Your task to perform on an android device: turn off translation in the chrome app Image 0: 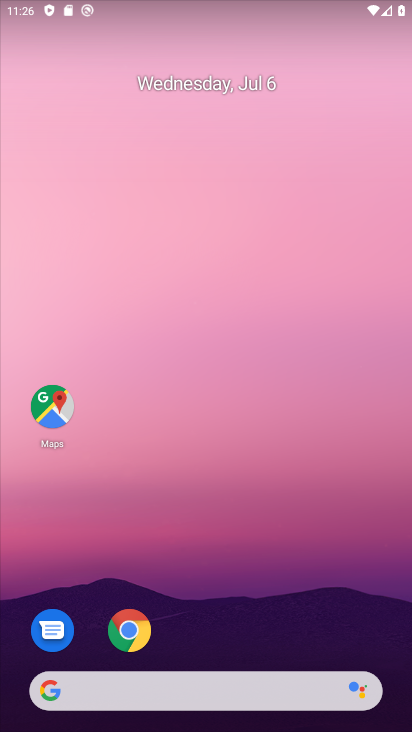
Step 0: drag from (268, 607) to (181, 119)
Your task to perform on an android device: turn off translation in the chrome app Image 1: 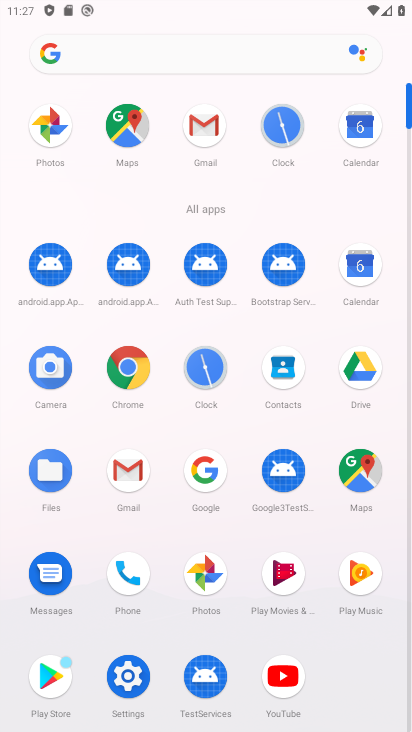
Step 1: click (134, 369)
Your task to perform on an android device: turn off translation in the chrome app Image 2: 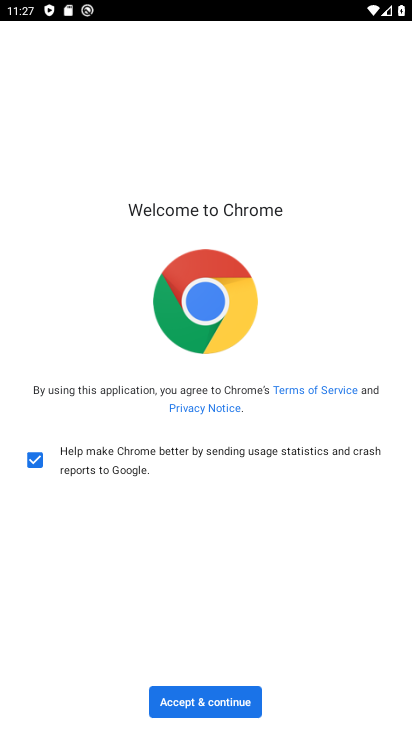
Step 2: click (215, 706)
Your task to perform on an android device: turn off translation in the chrome app Image 3: 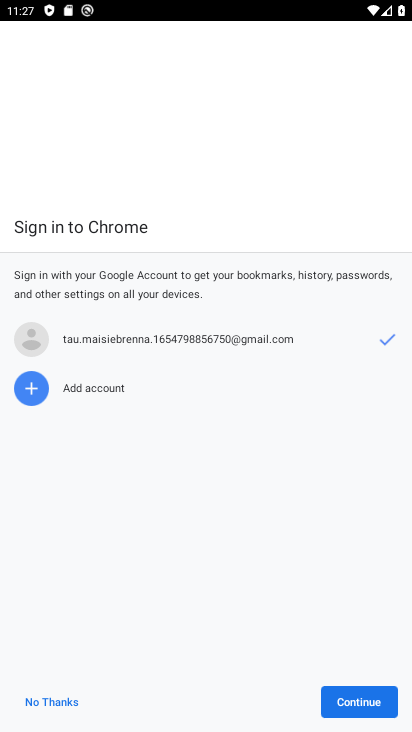
Step 3: click (346, 704)
Your task to perform on an android device: turn off translation in the chrome app Image 4: 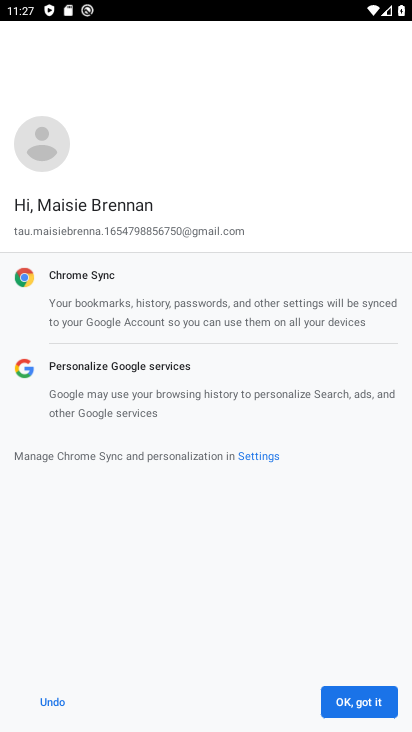
Step 4: click (380, 701)
Your task to perform on an android device: turn off translation in the chrome app Image 5: 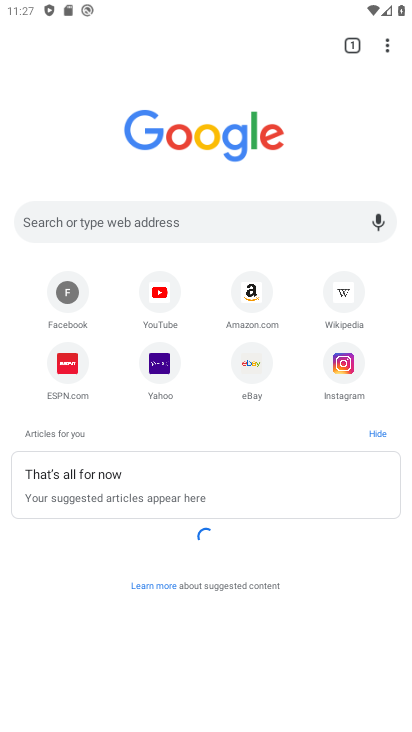
Step 5: click (385, 48)
Your task to perform on an android device: turn off translation in the chrome app Image 6: 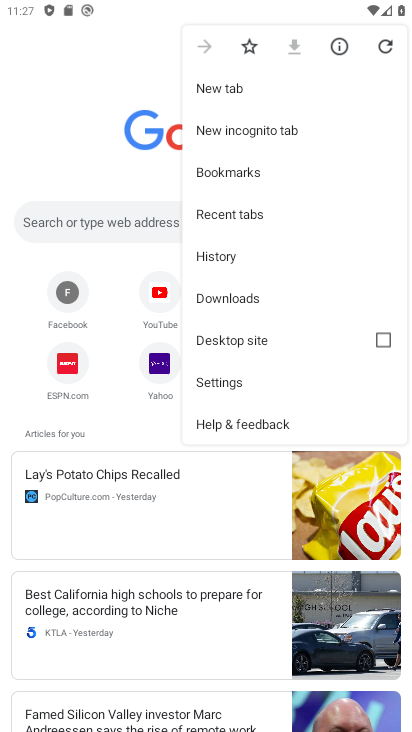
Step 6: click (261, 387)
Your task to perform on an android device: turn off translation in the chrome app Image 7: 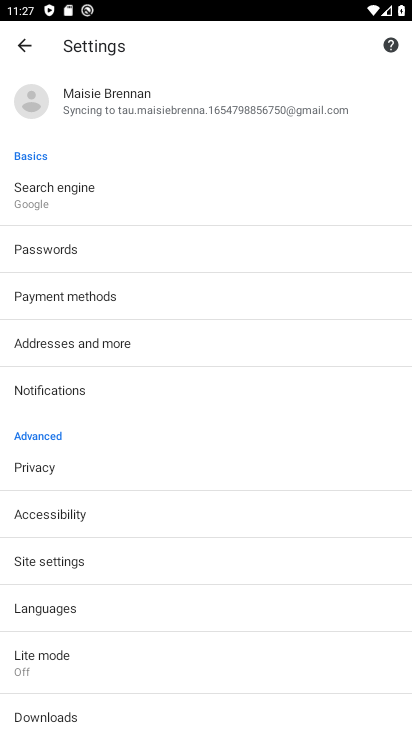
Step 7: click (189, 609)
Your task to perform on an android device: turn off translation in the chrome app Image 8: 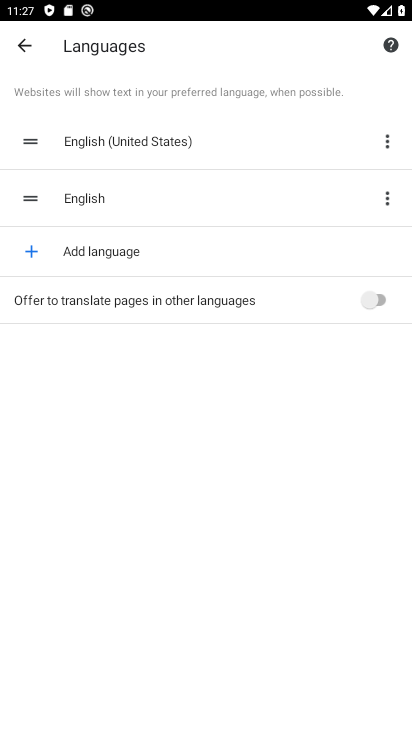
Step 8: task complete